Your task to perform on an android device: Open Google Maps Image 0: 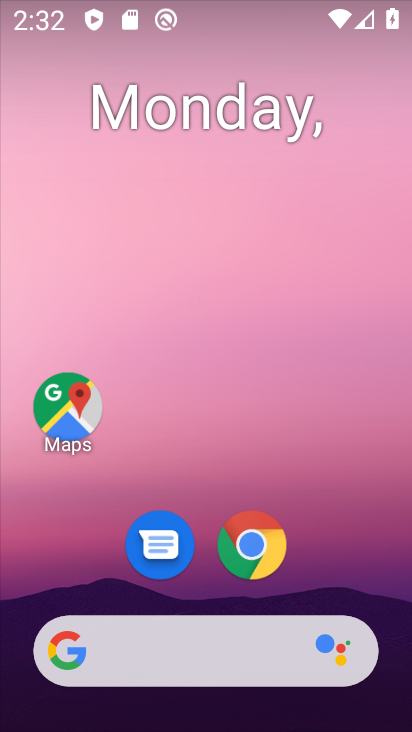
Step 0: click (74, 420)
Your task to perform on an android device: Open Google Maps Image 1: 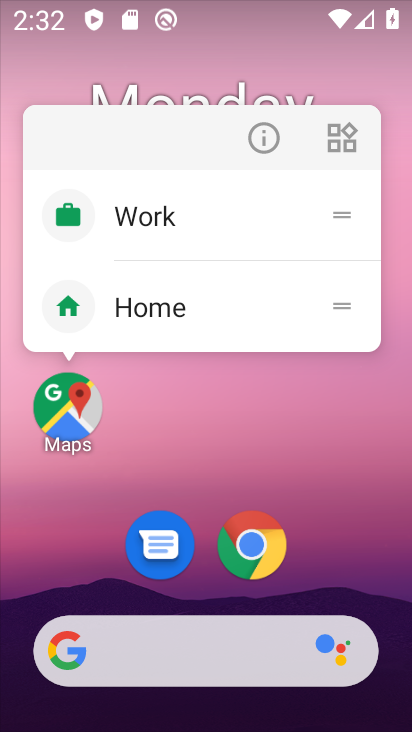
Step 1: click (66, 405)
Your task to perform on an android device: Open Google Maps Image 2: 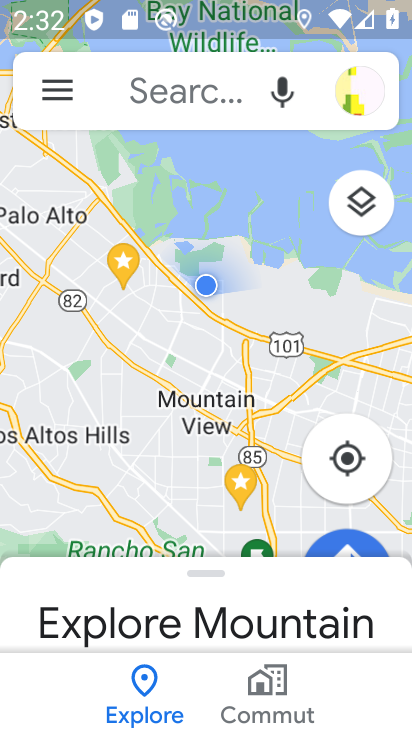
Step 2: task complete